Your task to perform on an android device: Do I have any events tomorrow? Image 0: 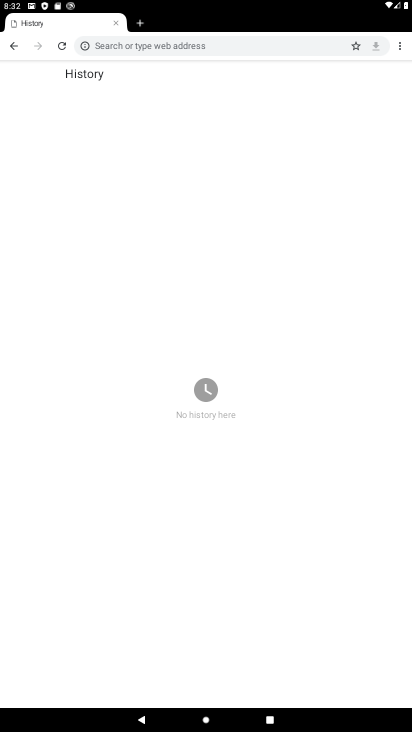
Step 0: press home button
Your task to perform on an android device: Do I have any events tomorrow? Image 1: 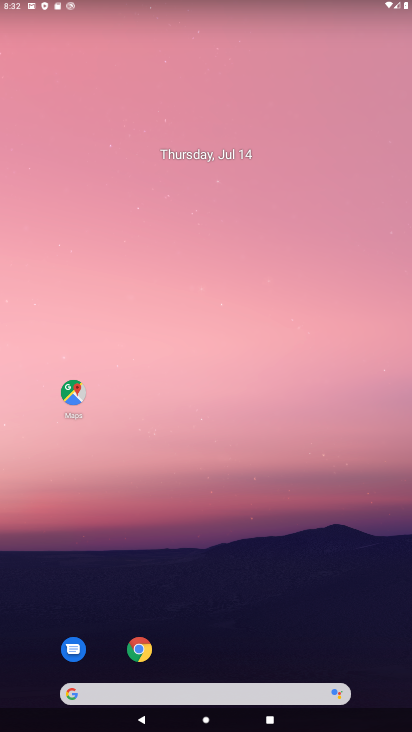
Step 1: drag from (251, 563) to (411, 275)
Your task to perform on an android device: Do I have any events tomorrow? Image 2: 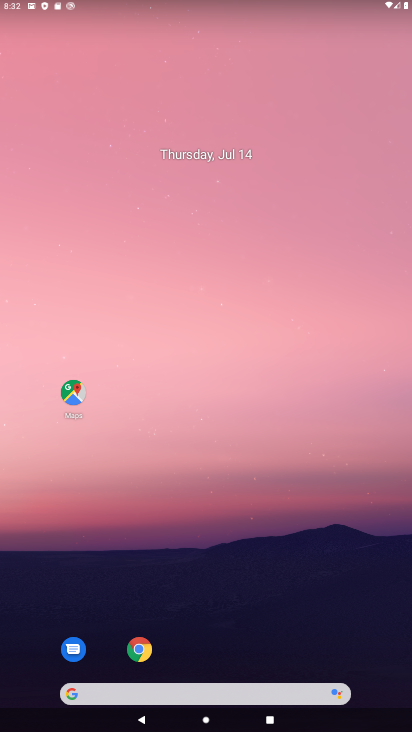
Step 2: drag from (250, 658) to (400, 113)
Your task to perform on an android device: Do I have any events tomorrow? Image 3: 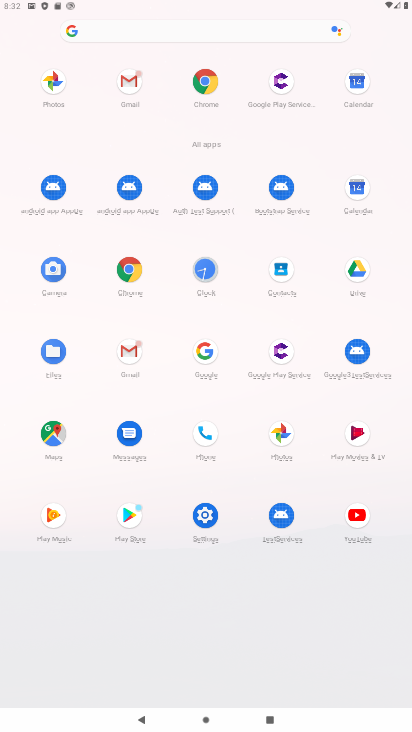
Step 3: click (362, 190)
Your task to perform on an android device: Do I have any events tomorrow? Image 4: 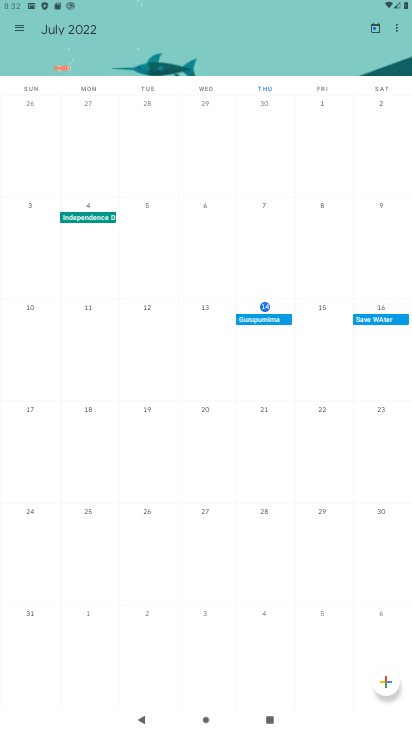
Step 4: click (327, 302)
Your task to perform on an android device: Do I have any events tomorrow? Image 5: 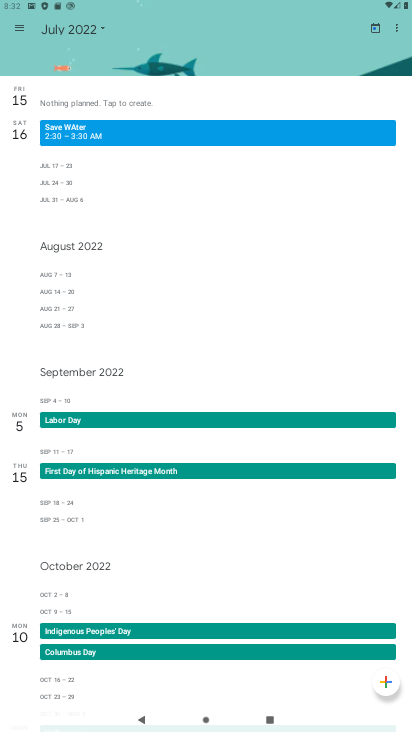
Step 5: task complete